Your task to perform on an android device: Open Google Maps Image 0: 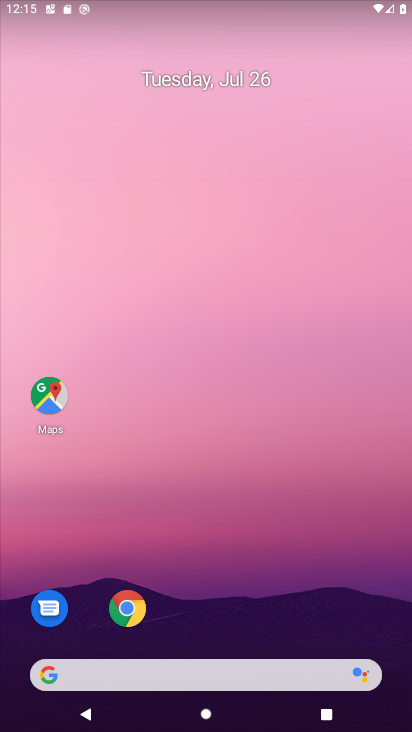
Step 0: click (53, 396)
Your task to perform on an android device: Open Google Maps Image 1: 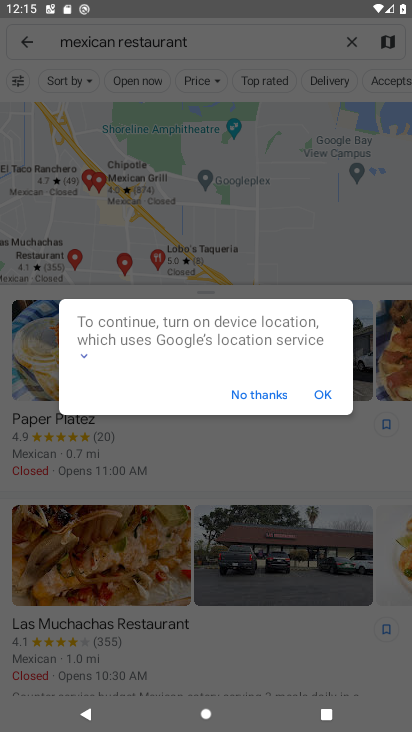
Step 1: click (255, 394)
Your task to perform on an android device: Open Google Maps Image 2: 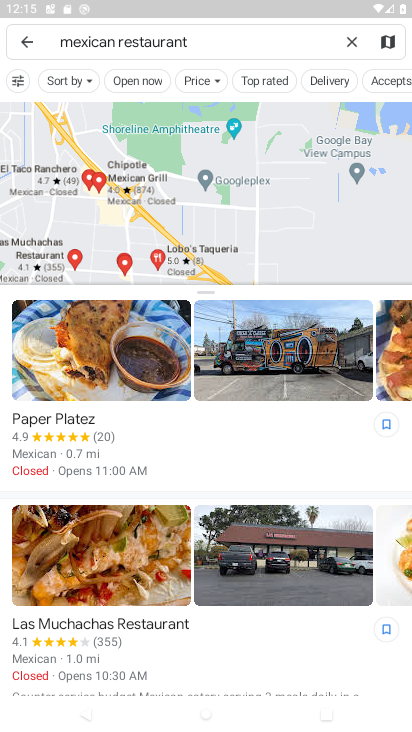
Step 2: task complete